Your task to perform on an android device: create a new album in the google photos Image 0: 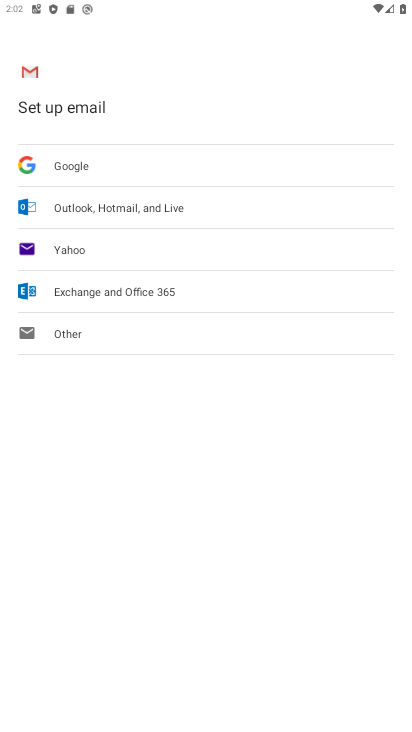
Step 0: press home button
Your task to perform on an android device: create a new album in the google photos Image 1: 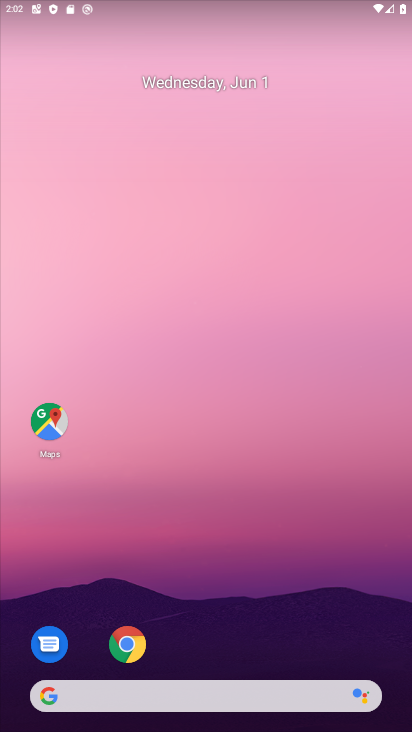
Step 1: drag from (260, 550) to (301, 257)
Your task to perform on an android device: create a new album in the google photos Image 2: 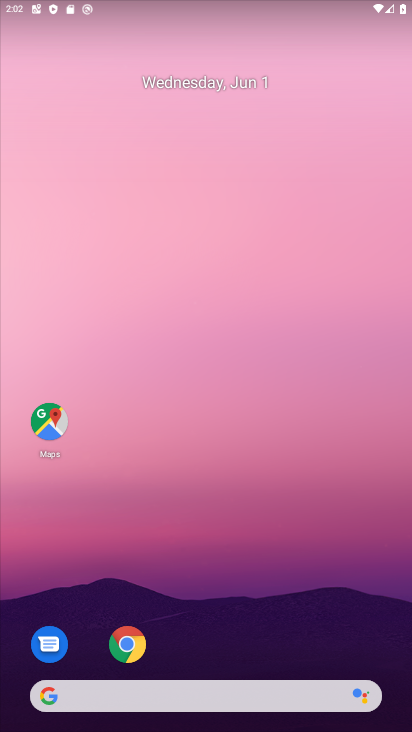
Step 2: drag from (195, 648) to (209, 253)
Your task to perform on an android device: create a new album in the google photos Image 3: 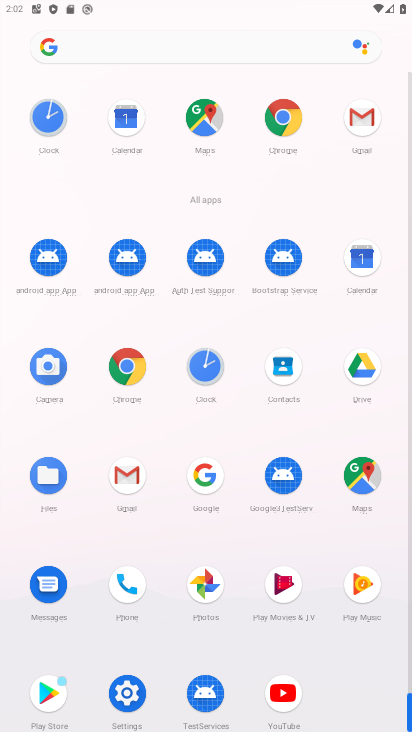
Step 3: click (205, 587)
Your task to perform on an android device: create a new album in the google photos Image 4: 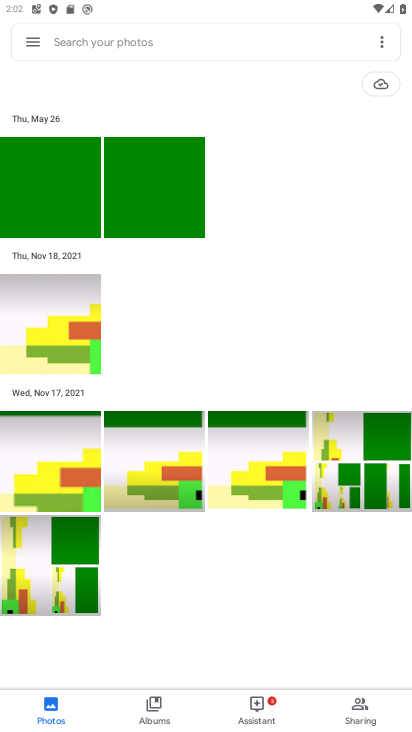
Step 4: click (161, 712)
Your task to perform on an android device: create a new album in the google photos Image 5: 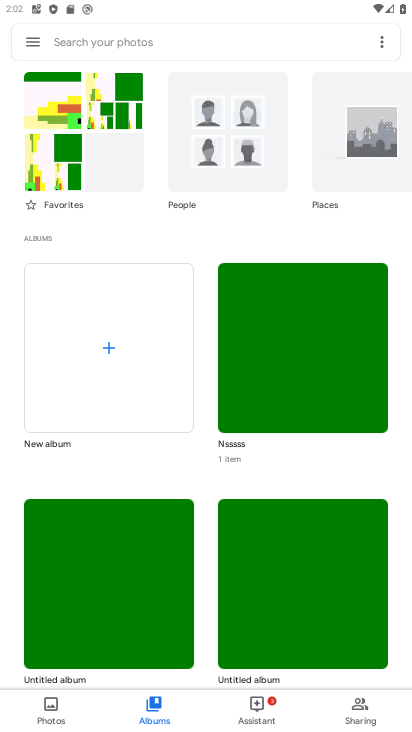
Step 5: click (108, 344)
Your task to perform on an android device: create a new album in the google photos Image 6: 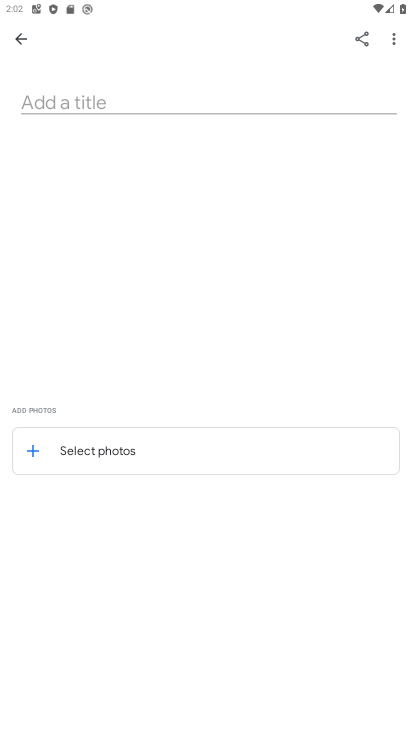
Step 6: click (45, 458)
Your task to perform on an android device: create a new album in the google photos Image 7: 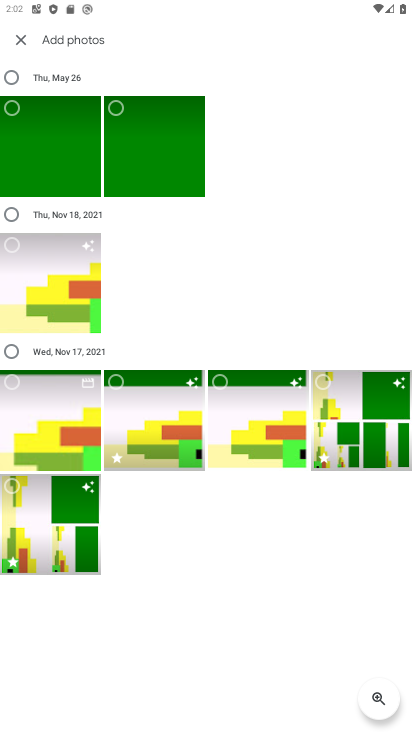
Step 7: click (12, 247)
Your task to perform on an android device: create a new album in the google photos Image 8: 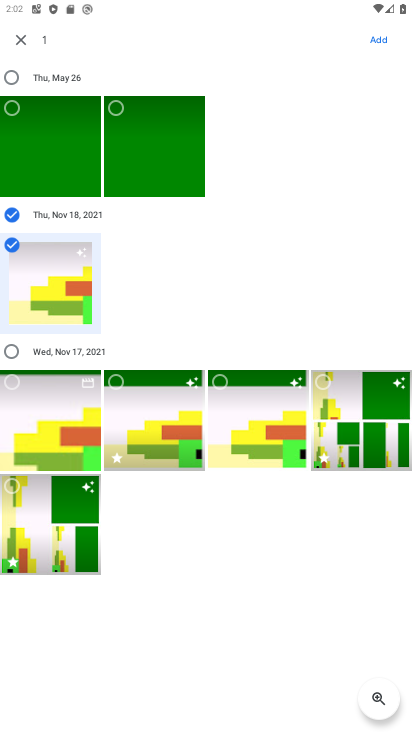
Step 8: click (115, 112)
Your task to perform on an android device: create a new album in the google photos Image 9: 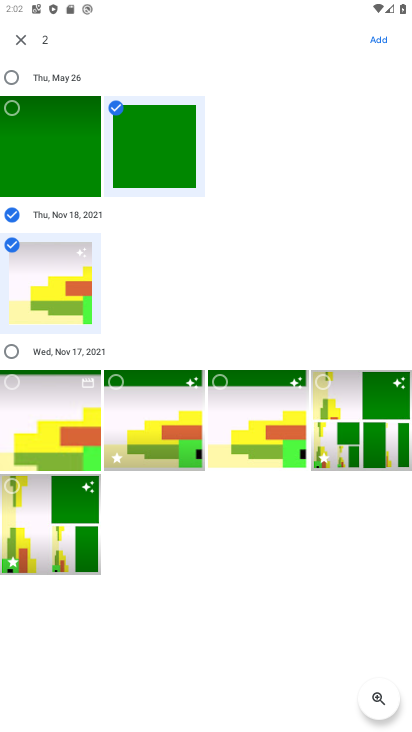
Step 9: click (381, 35)
Your task to perform on an android device: create a new album in the google photos Image 10: 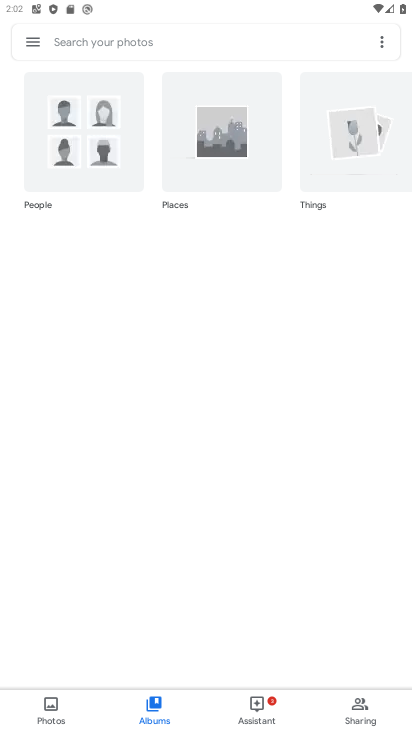
Step 10: task complete